Your task to perform on an android device: open app "LinkedIn" (install if not already installed) and enter user name: "dirt@inbox.com" and password: "receptionist" Image 0: 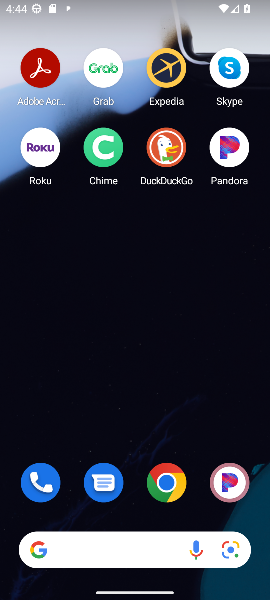
Step 0: drag from (134, 525) to (137, 92)
Your task to perform on an android device: open app "LinkedIn" (install if not already installed) and enter user name: "dirt@inbox.com" and password: "receptionist" Image 1: 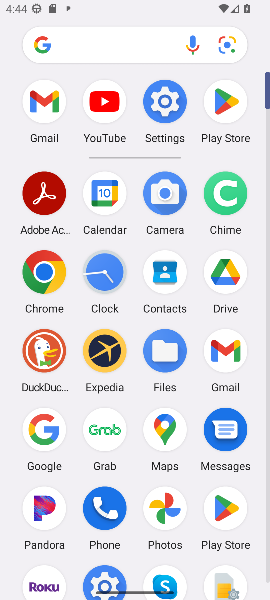
Step 1: click (220, 105)
Your task to perform on an android device: open app "LinkedIn" (install if not already installed) and enter user name: "dirt@inbox.com" and password: "receptionist" Image 2: 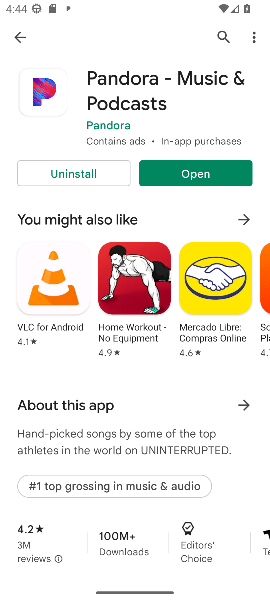
Step 2: click (224, 34)
Your task to perform on an android device: open app "LinkedIn" (install if not already installed) and enter user name: "dirt@inbox.com" and password: "receptionist" Image 3: 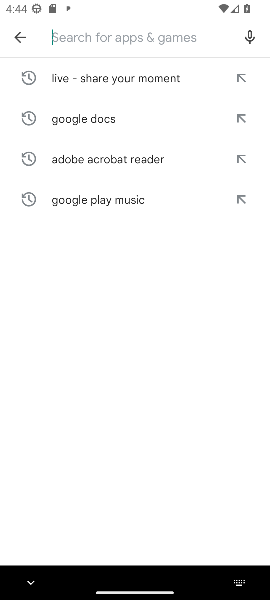
Step 3: type "LinkedIn"
Your task to perform on an android device: open app "LinkedIn" (install if not already installed) and enter user name: "dirt@inbox.com" and password: "receptionist" Image 4: 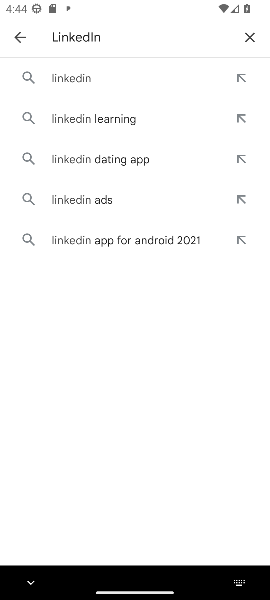
Step 4: click (66, 71)
Your task to perform on an android device: open app "LinkedIn" (install if not already installed) and enter user name: "dirt@inbox.com" and password: "receptionist" Image 5: 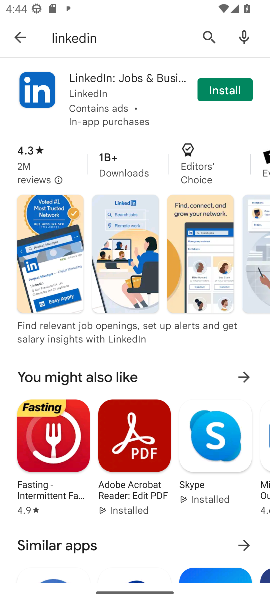
Step 5: click (223, 93)
Your task to perform on an android device: open app "LinkedIn" (install if not already installed) and enter user name: "dirt@inbox.com" and password: "receptionist" Image 6: 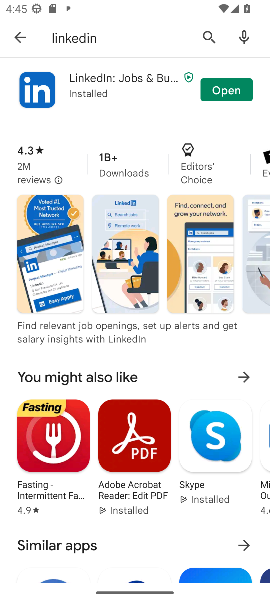
Step 6: click (220, 90)
Your task to perform on an android device: open app "LinkedIn" (install if not already installed) and enter user name: "dirt@inbox.com" and password: "receptionist" Image 7: 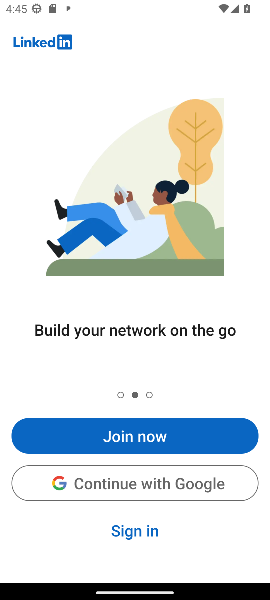
Step 7: click (132, 527)
Your task to perform on an android device: open app "LinkedIn" (install if not already installed) and enter user name: "dirt@inbox.com" and password: "receptionist" Image 8: 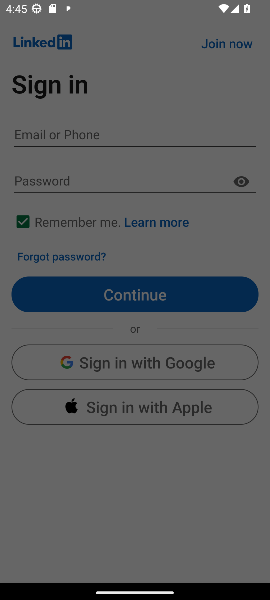
Step 8: click (119, 136)
Your task to perform on an android device: open app "LinkedIn" (install if not already installed) and enter user name: "dirt@inbox.com" and password: "receptionist" Image 9: 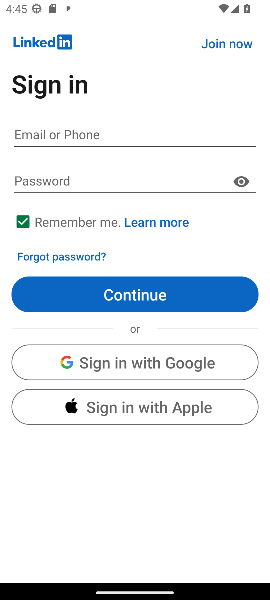
Step 9: click (130, 133)
Your task to perform on an android device: open app "LinkedIn" (install if not already installed) and enter user name: "dirt@inbox.com" and password: "receptionist" Image 10: 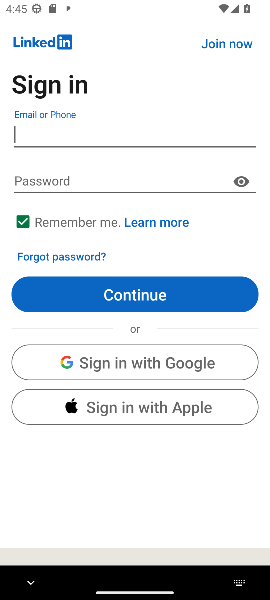
Step 10: type "dirt@inbox.com"
Your task to perform on an android device: open app "LinkedIn" (install if not already installed) and enter user name: "dirt@inbox.com" and password: "receptionist" Image 11: 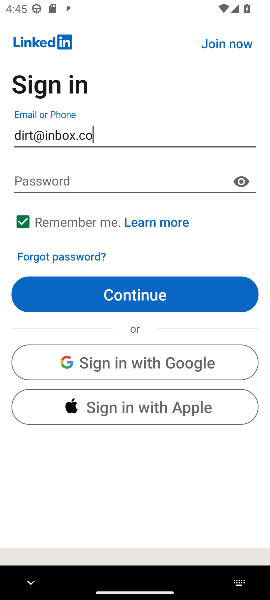
Step 11: type ""
Your task to perform on an android device: open app "LinkedIn" (install if not already installed) and enter user name: "dirt@inbox.com" and password: "receptionist" Image 12: 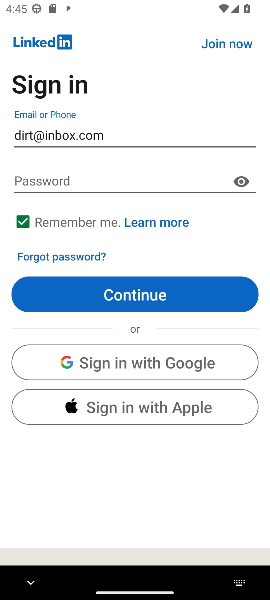
Step 12: click (117, 178)
Your task to perform on an android device: open app "LinkedIn" (install if not already installed) and enter user name: "dirt@inbox.com" and password: "receptionist" Image 13: 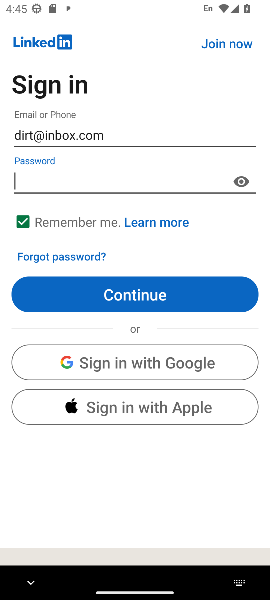
Step 13: type "receptionist"
Your task to perform on an android device: open app "LinkedIn" (install if not already installed) and enter user name: "dirt@inbox.com" and password: "receptionist" Image 14: 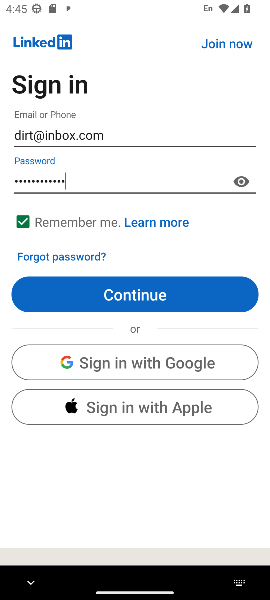
Step 14: task complete